Your task to perform on an android device: Open CNN.com Image 0: 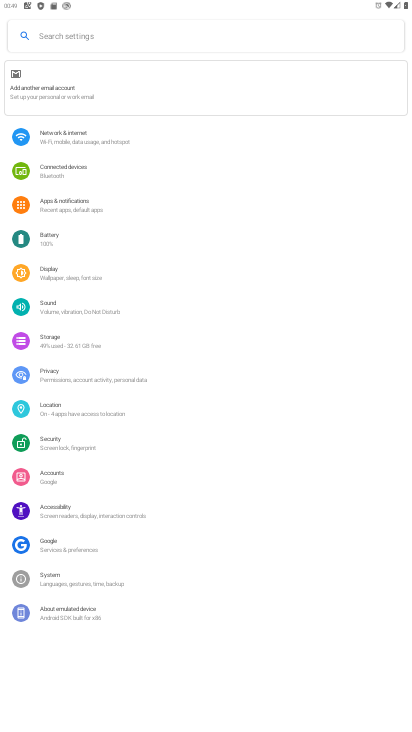
Step 0: press home button
Your task to perform on an android device: Open CNN.com Image 1: 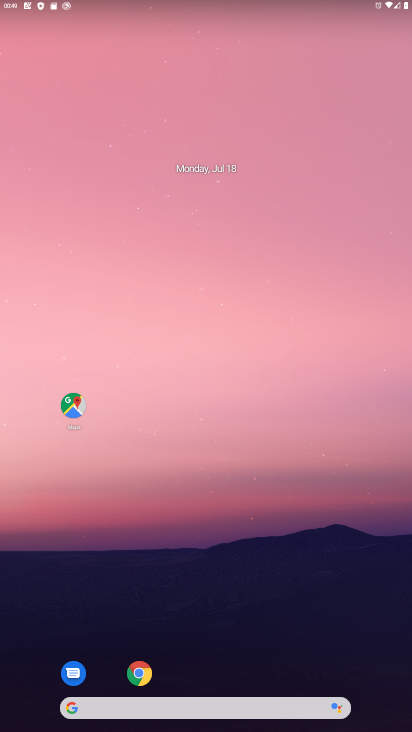
Step 1: click (179, 710)
Your task to perform on an android device: Open CNN.com Image 2: 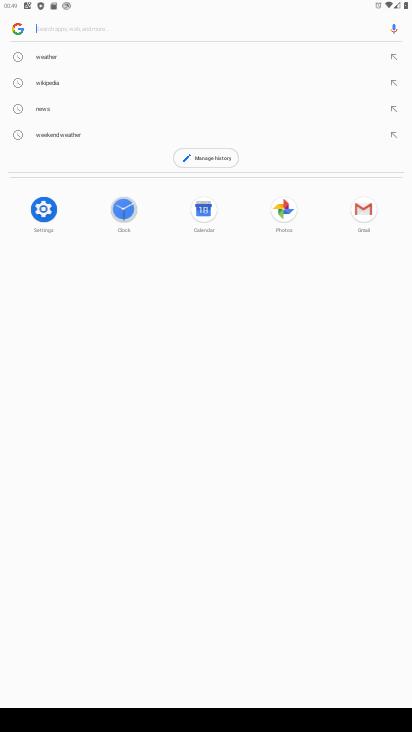
Step 2: type "cnn.com"
Your task to perform on an android device: Open CNN.com Image 3: 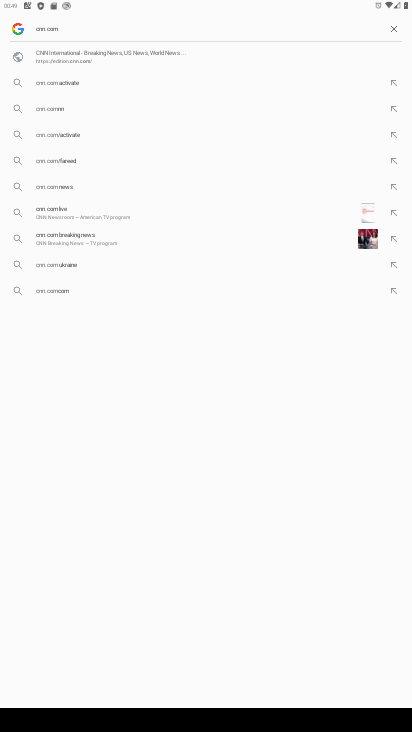
Step 3: click (116, 58)
Your task to perform on an android device: Open CNN.com Image 4: 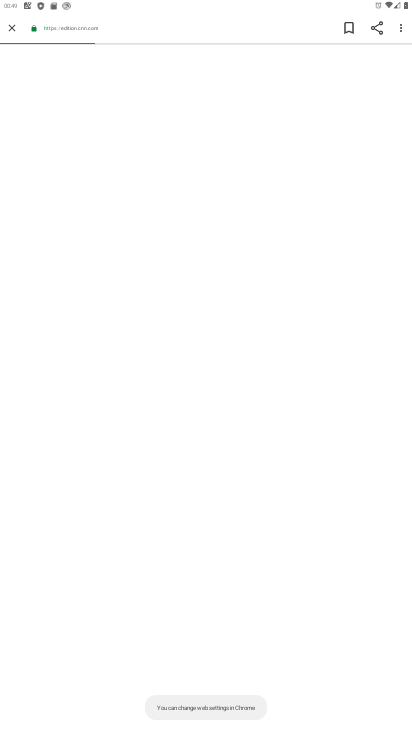
Step 4: task complete